Your task to perform on an android device: Go to calendar. Show me events next week Image 0: 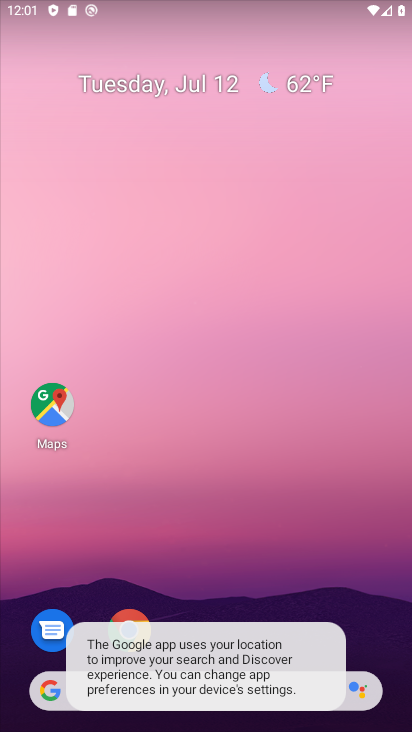
Step 0: drag from (248, 493) to (278, 93)
Your task to perform on an android device: Go to calendar. Show me events next week Image 1: 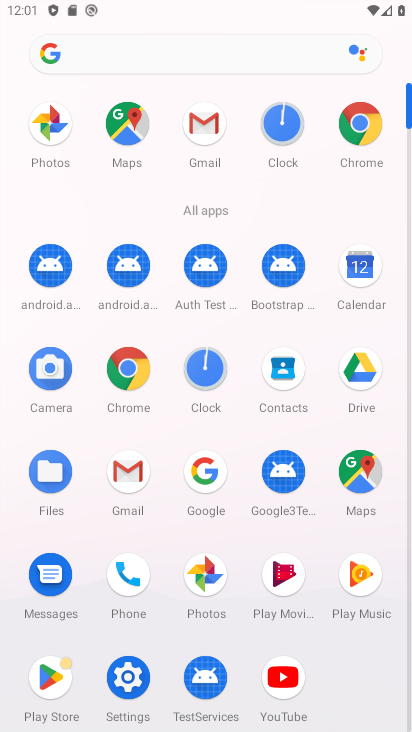
Step 1: click (363, 264)
Your task to perform on an android device: Go to calendar. Show me events next week Image 2: 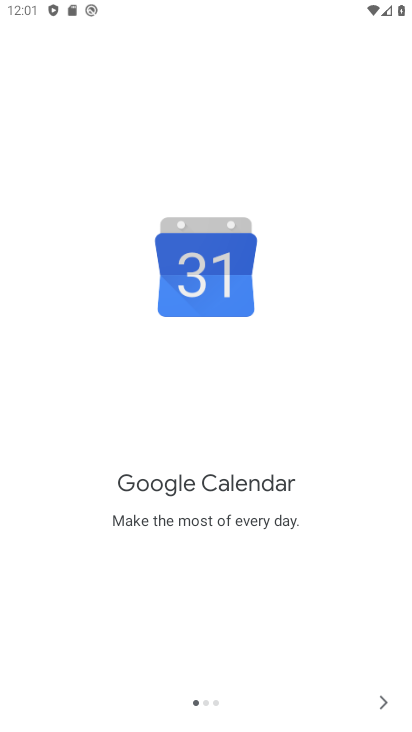
Step 2: click (380, 698)
Your task to perform on an android device: Go to calendar. Show me events next week Image 3: 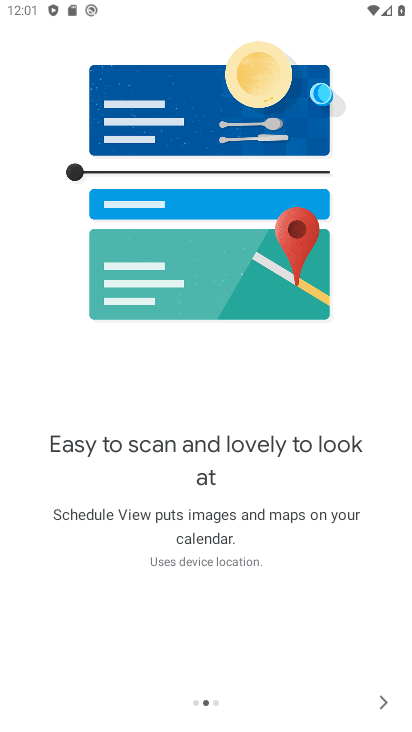
Step 3: click (380, 698)
Your task to perform on an android device: Go to calendar. Show me events next week Image 4: 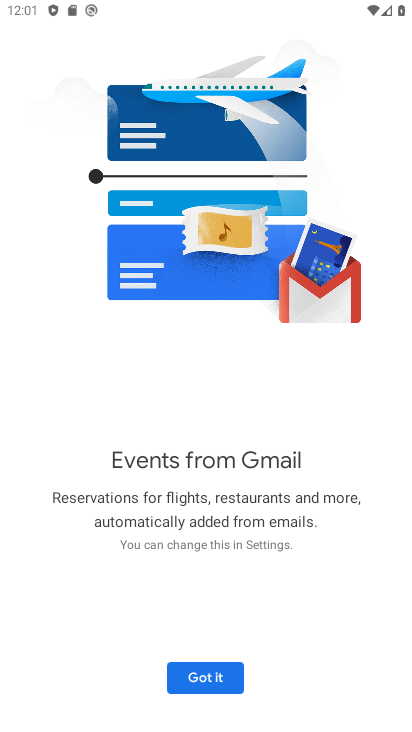
Step 4: click (227, 677)
Your task to perform on an android device: Go to calendar. Show me events next week Image 5: 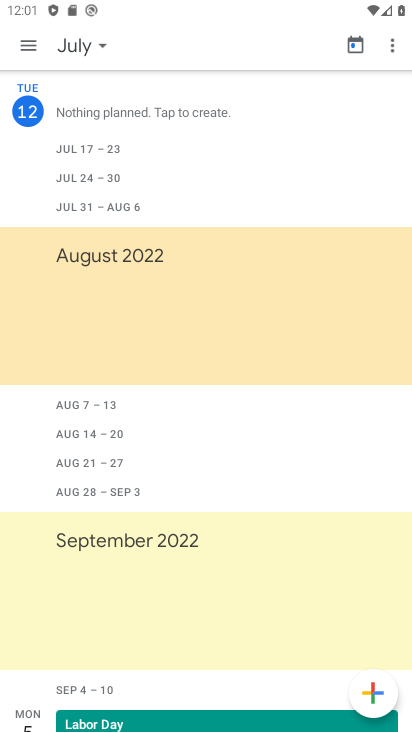
Step 5: click (94, 33)
Your task to perform on an android device: Go to calendar. Show me events next week Image 6: 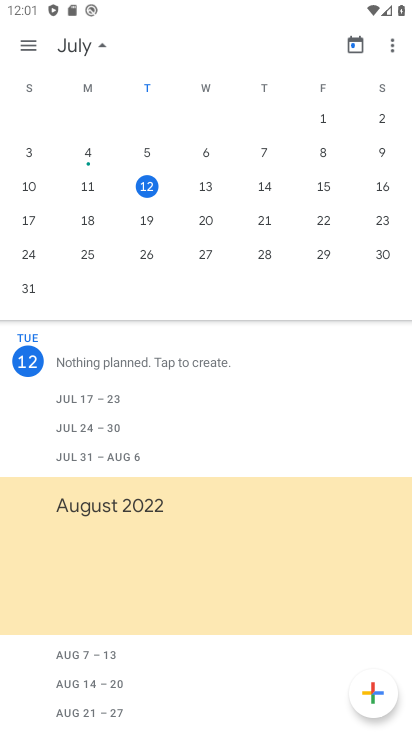
Step 6: click (206, 221)
Your task to perform on an android device: Go to calendar. Show me events next week Image 7: 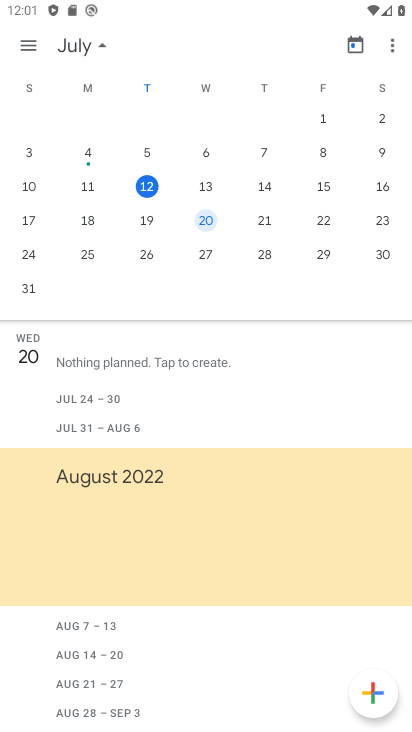
Step 7: task complete